Your task to perform on an android device: turn off priority inbox in the gmail app Image 0: 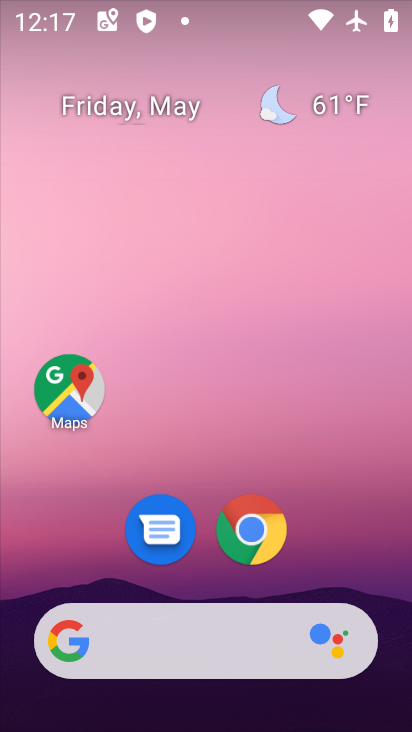
Step 0: drag from (366, 543) to (293, 102)
Your task to perform on an android device: turn off priority inbox in the gmail app Image 1: 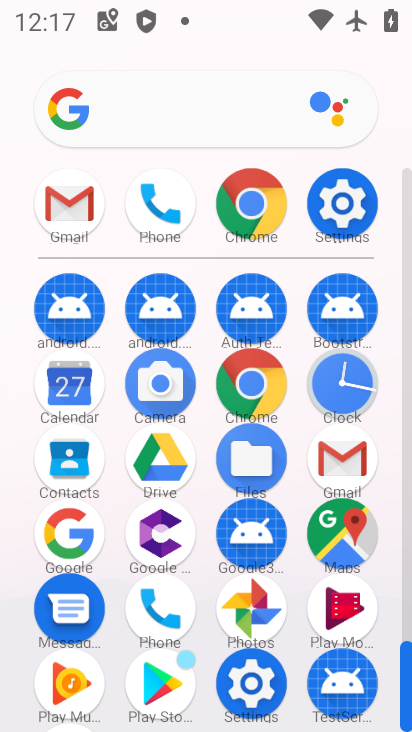
Step 1: click (342, 448)
Your task to perform on an android device: turn off priority inbox in the gmail app Image 2: 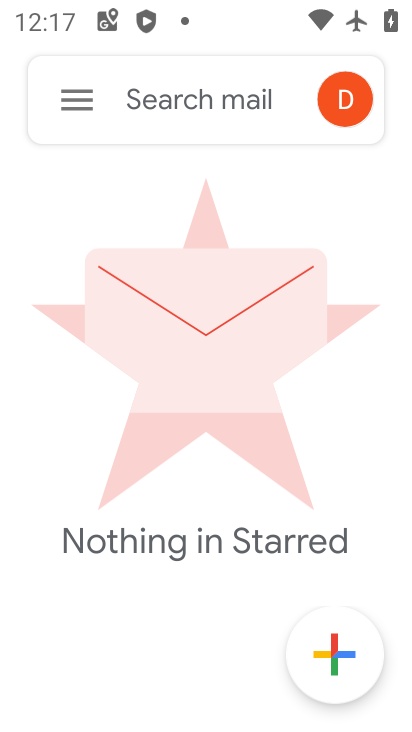
Step 2: click (79, 130)
Your task to perform on an android device: turn off priority inbox in the gmail app Image 3: 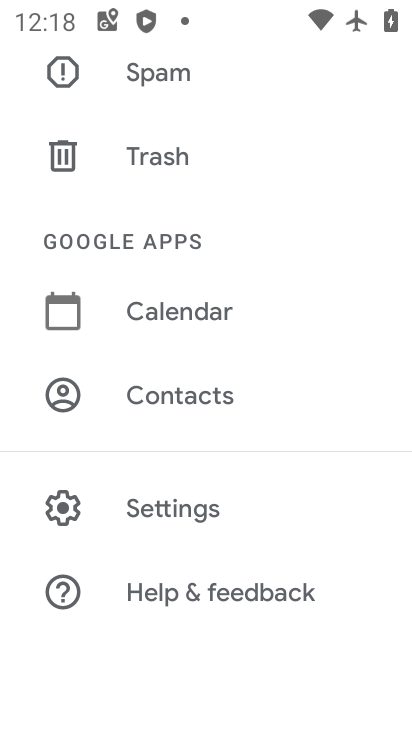
Step 3: click (177, 501)
Your task to perform on an android device: turn off priority inbox in the gmail app Image 4: 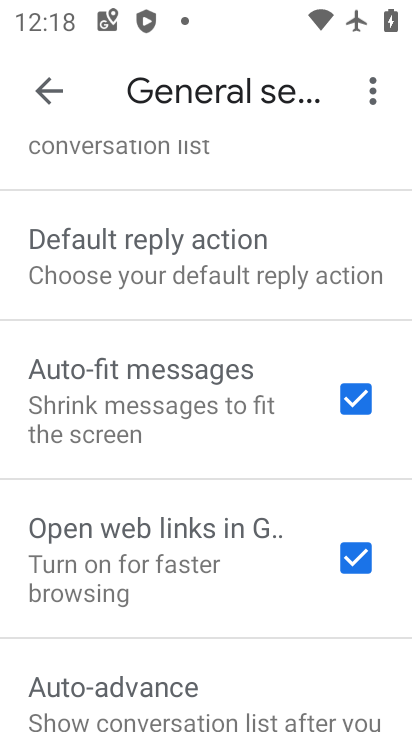
Step 4: drag from (163, 318) to (175, 661)
Your task to perform on an android device: turn off priority inbox in the gmail app Image 5: 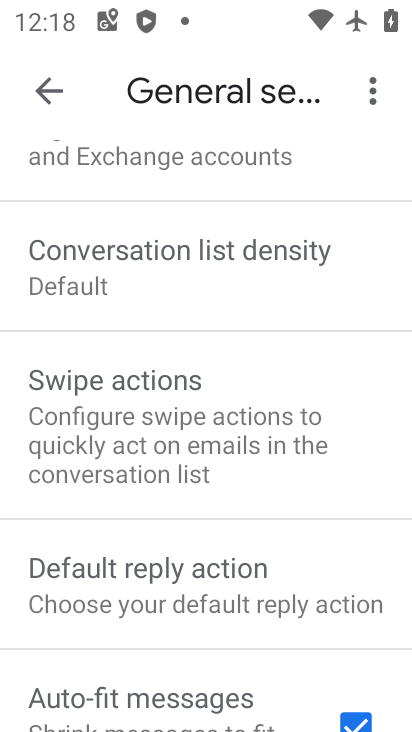
Step 5: drag from (162, 267) to (159, 662)
Your task to perform on an android device: turn off priority inbox in the gmail app Image 6: 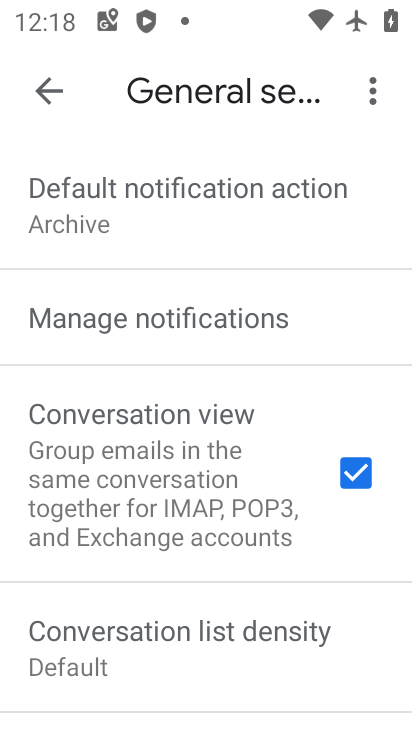
Step 6: click (154, 340)
Your task to perform on an android device: turn off priority inbox in the gmail app Image 7: 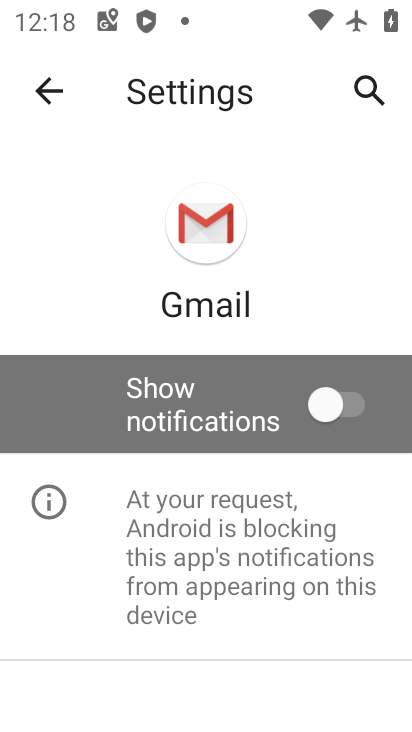
Step 7: click (49, 100)
Your task to perform on an android device: turn off priority inbox in the gmail app Image 8: 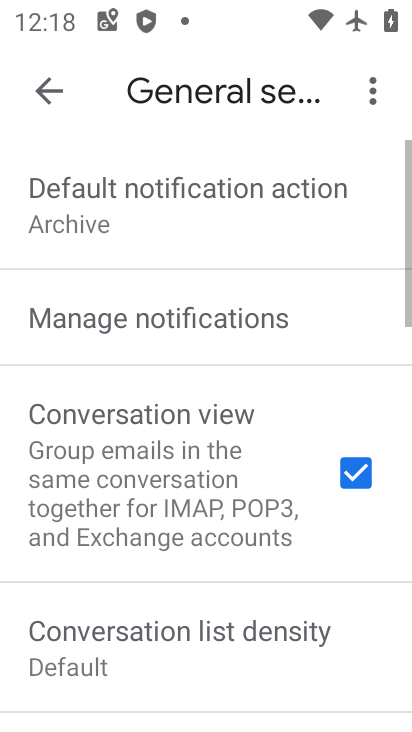
Step 8: drag from (163, 251) to (175, 714)
Your task to perform on an android device: turn off priority inbox in the gmail app Image 9: 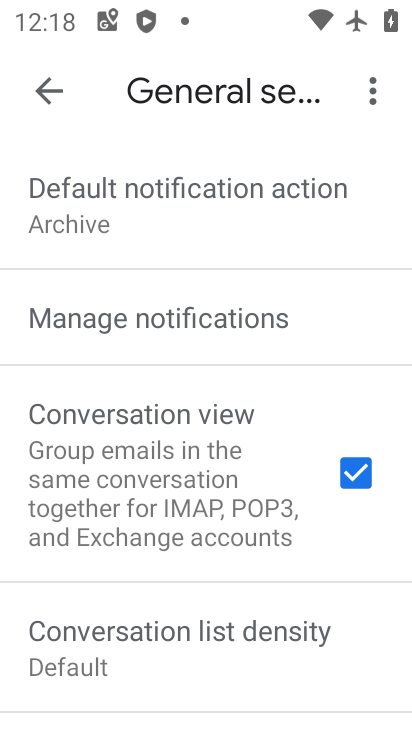
Step 9: click (276, 256)
Your task to perform on an android device: turn off priority inbox in the gmail app Image 10: 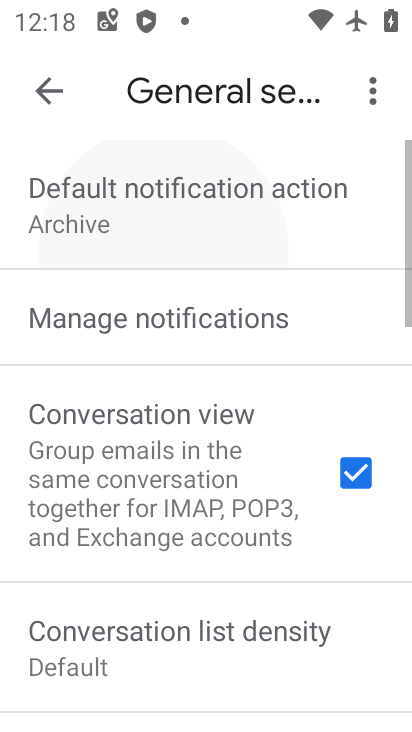
Step 10: click (276, 256)
Your task to perform on an android device: turn off priority inbox in the gmail app Image 11: 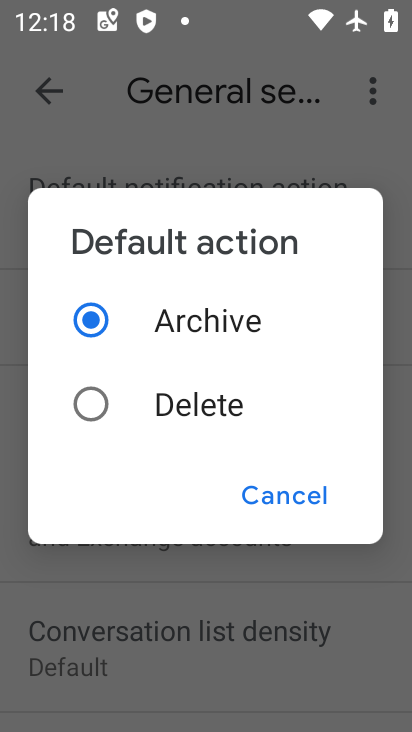
Step 11: task complete